Your task to perform on an android device: Search for the best way to get rid of a cold Image 0: 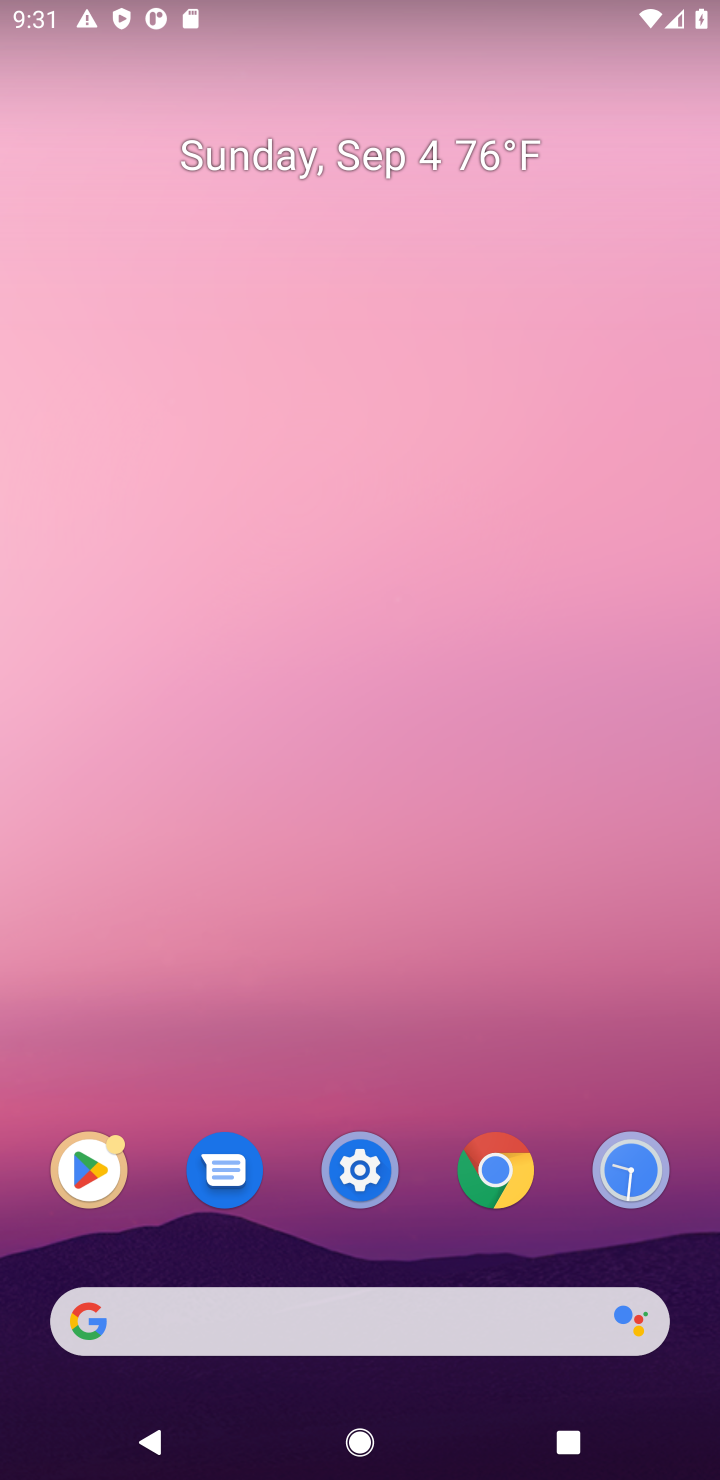
Step 0: click (429, 1321)
Your task to perform on an android device: Search for the best way to get rid of a cold Image 1: 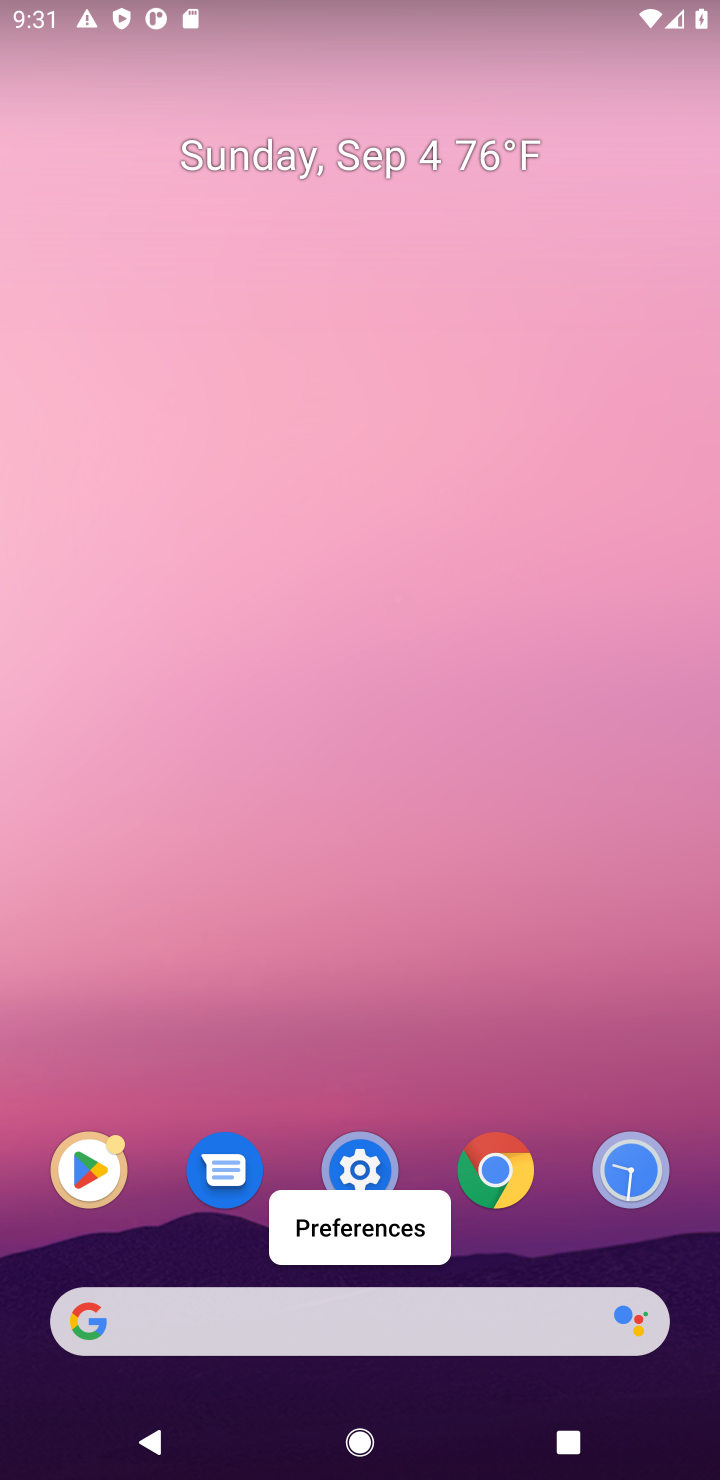
Step 1: click (434, 1329)
Your task to perform on an android device: Search for the best way to get rid of a cold Image 2: 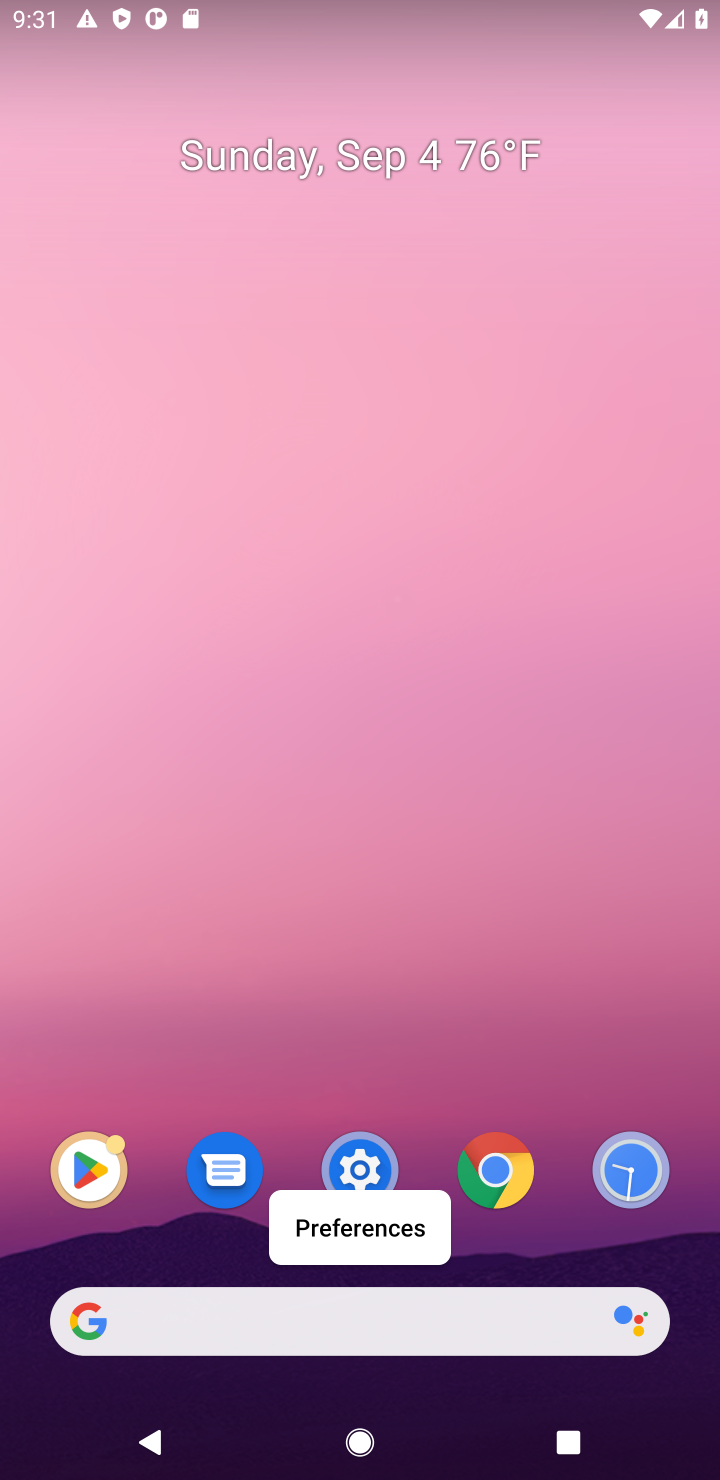
Step 2: click (337, 1315)
Your task to perform on an android device: Search for the best way to get rid of a cold Image 3: 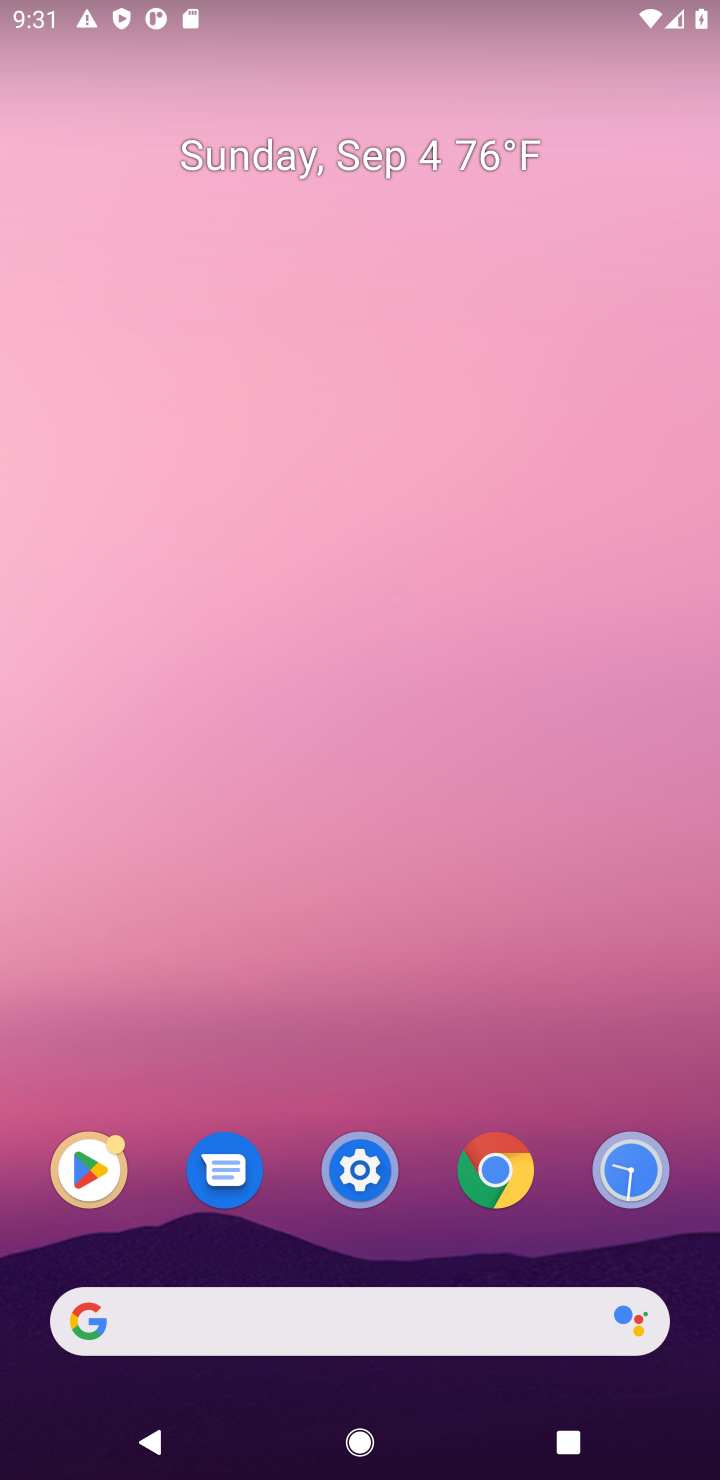
Step 3: click (395, 1343)
Your task to perform on an android device: Search for the best way to get rid of a cold Image 4: 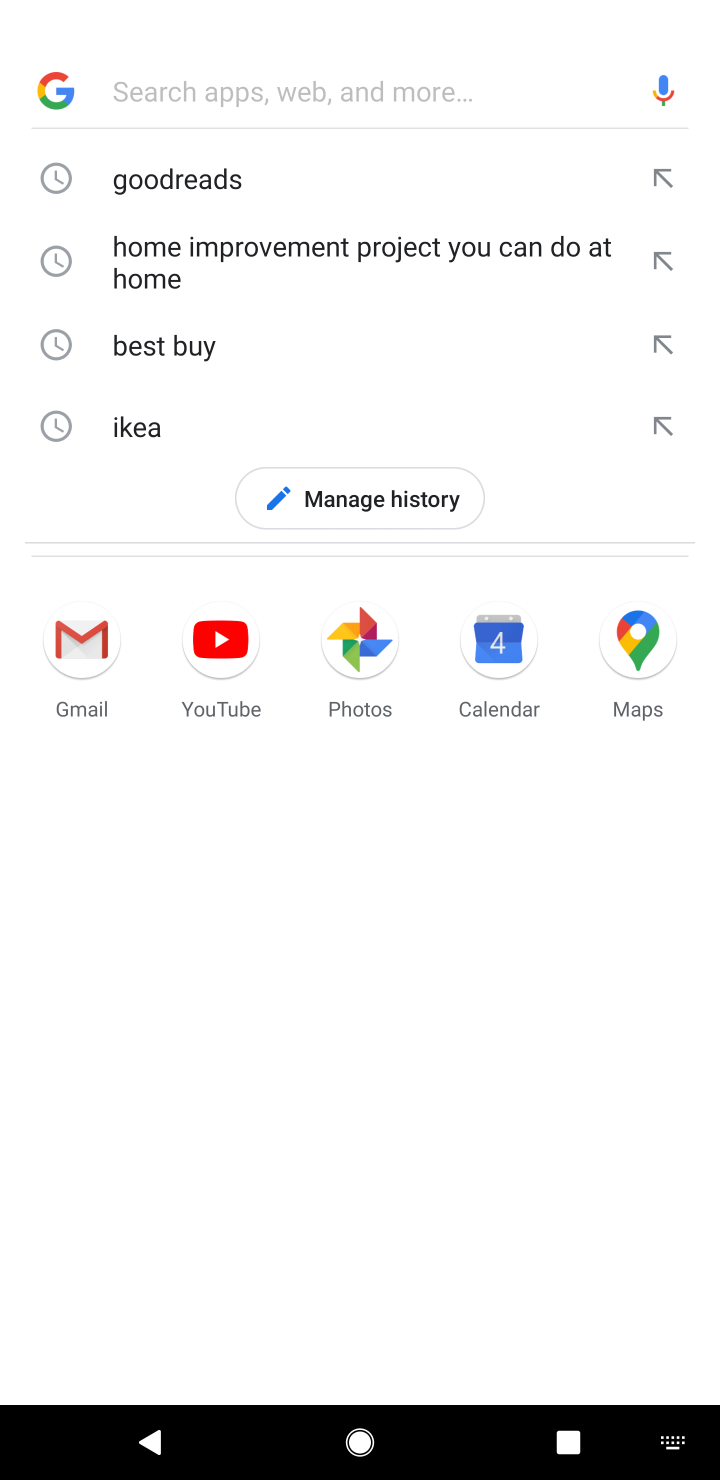
Step 4: type "best way to get rid of a cold"
Your task to perform on an android device: Search for the best way to get rid of a cold Image 5: 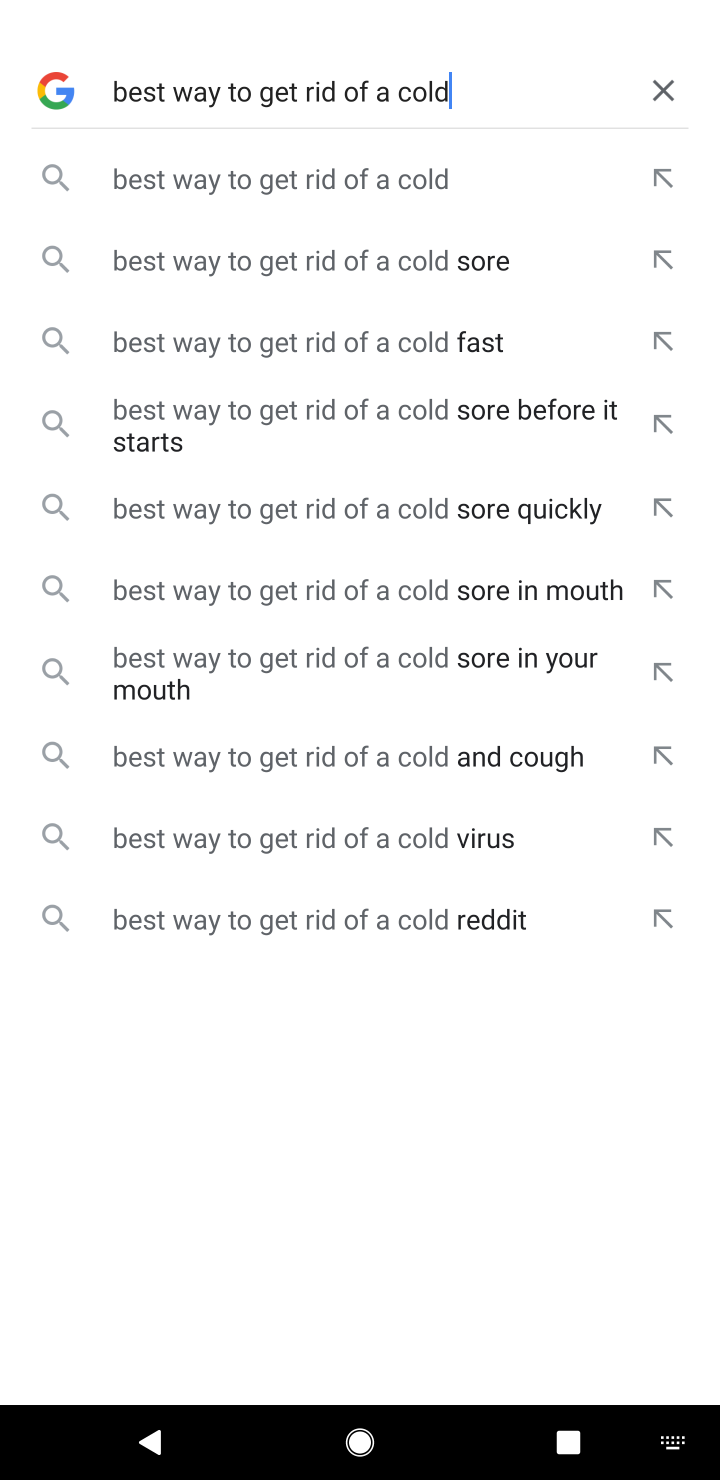
Step 5: click (231, 173)
Your task to perform on an android device: Search for the best way to get rid of a cold Image 6: 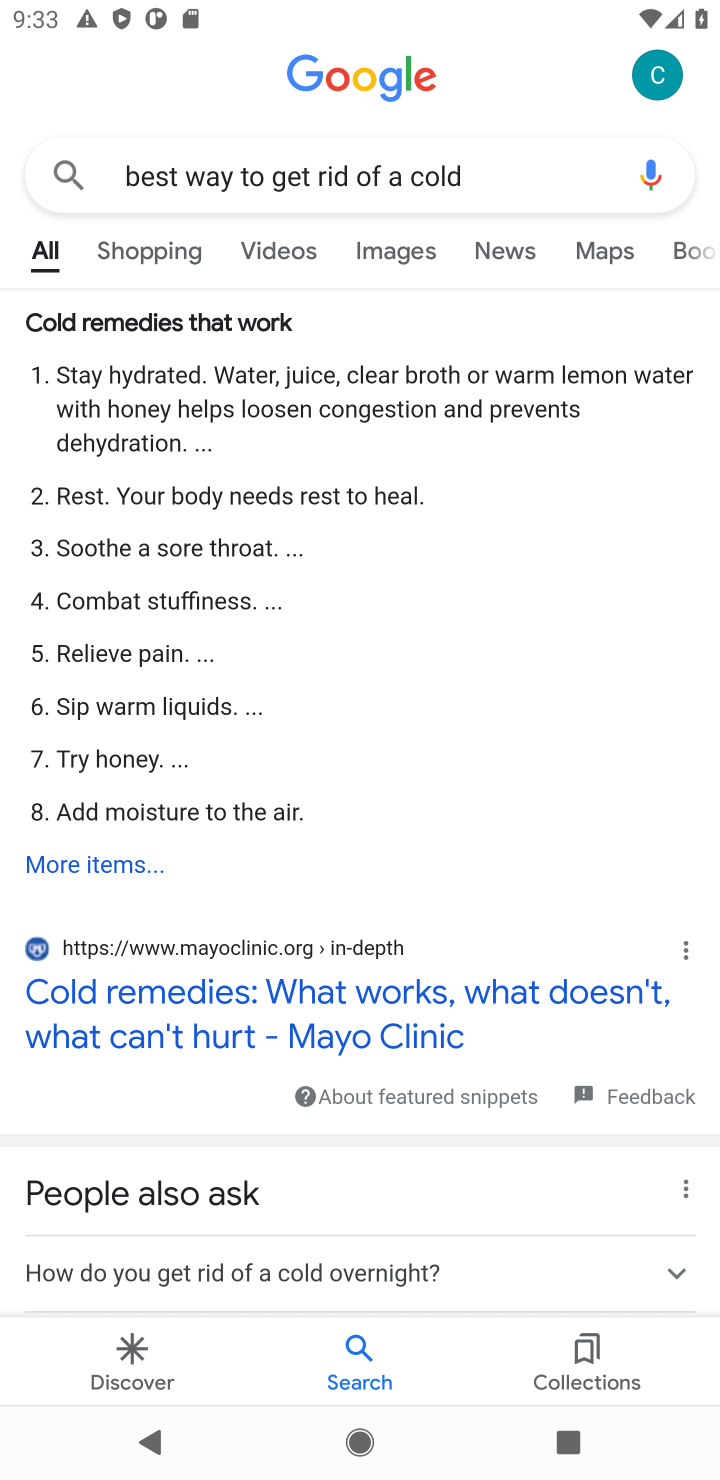
Step 6: task complete